Your task to perform on an android device: turn off location history Image 0: 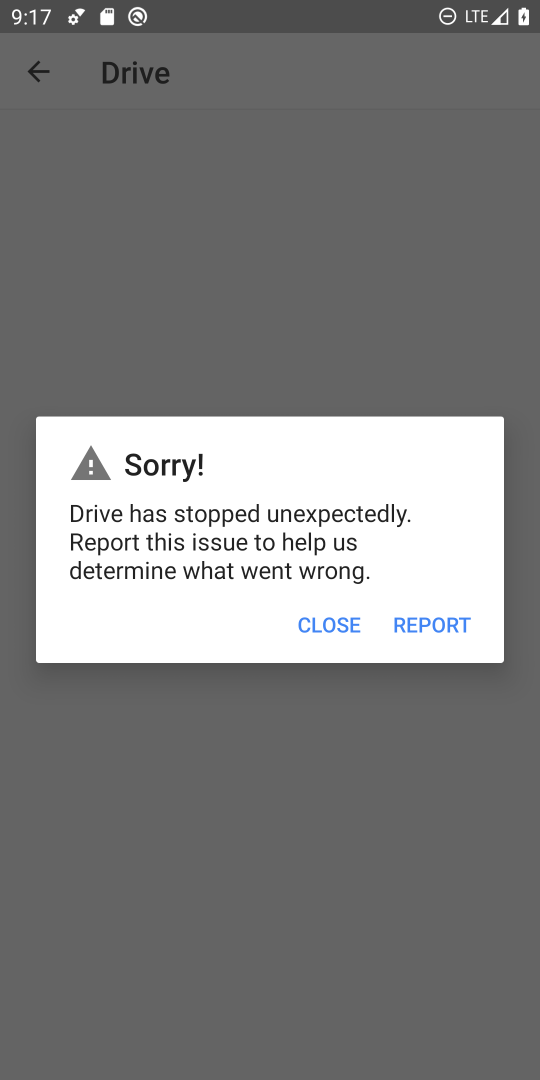
Step 0: press home button
Your task to perform on an android device: turn off location history Image 1: 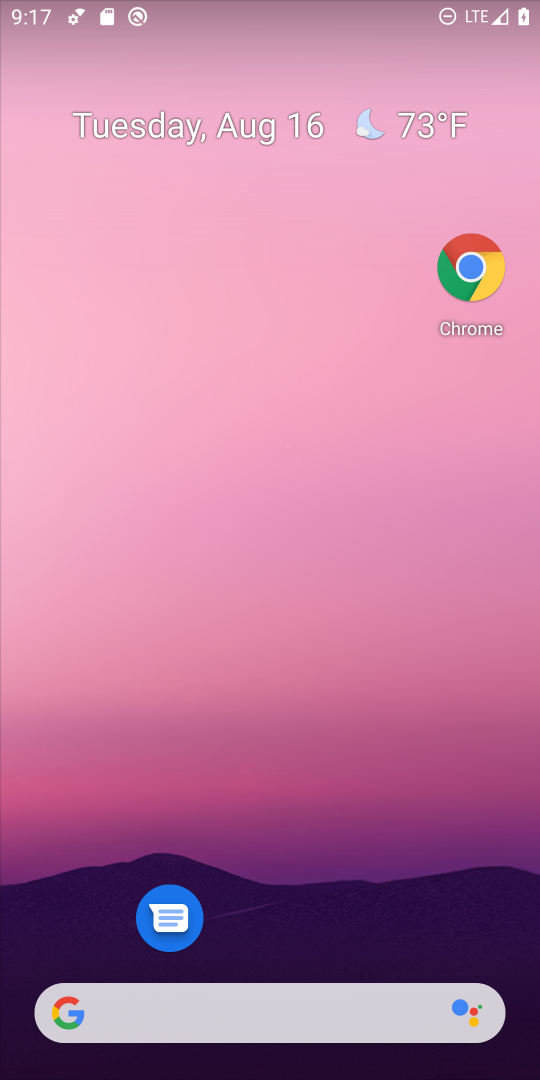
Step 1: drag from (315, 879) to (363, 41)
Your task to perform on an android device: turn off location history Image 2: 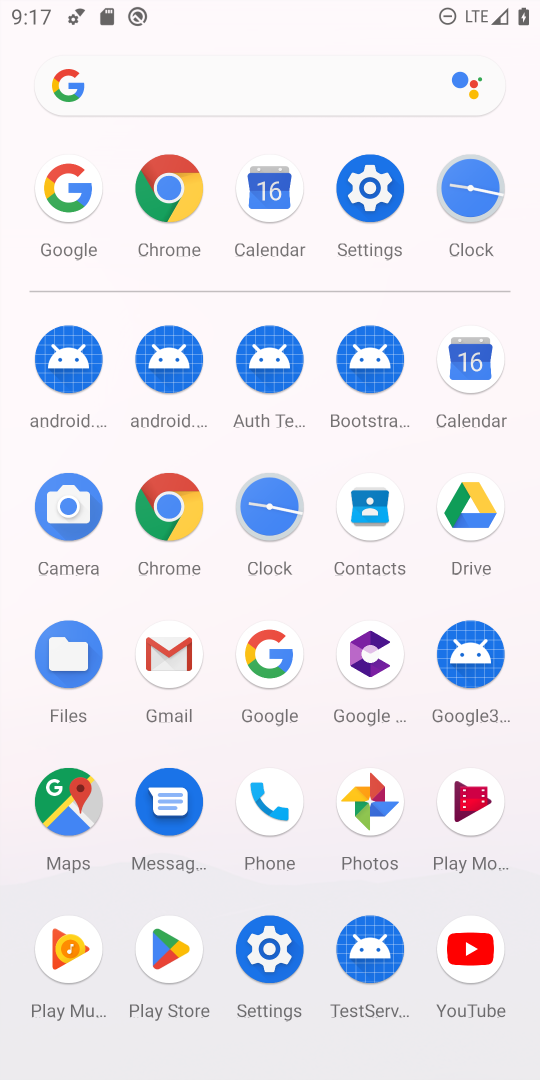
Step 2: click (383, 207)
Your task to perform on an android device: turn off location history Image 3: 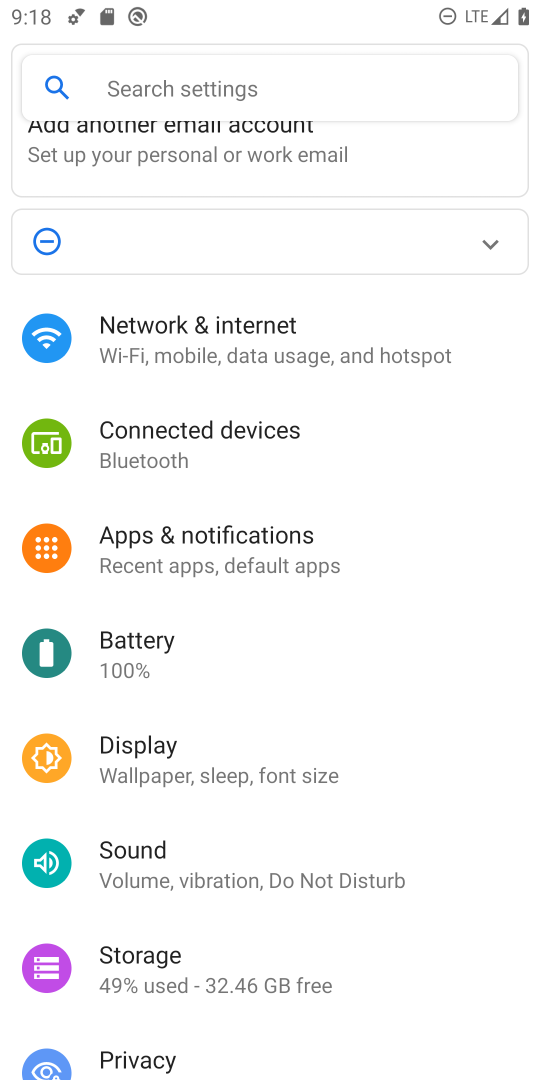
Step 3: drag from (186, 932) to (242, 267)
Your task to perform on an android device: turn off location history Image 4: 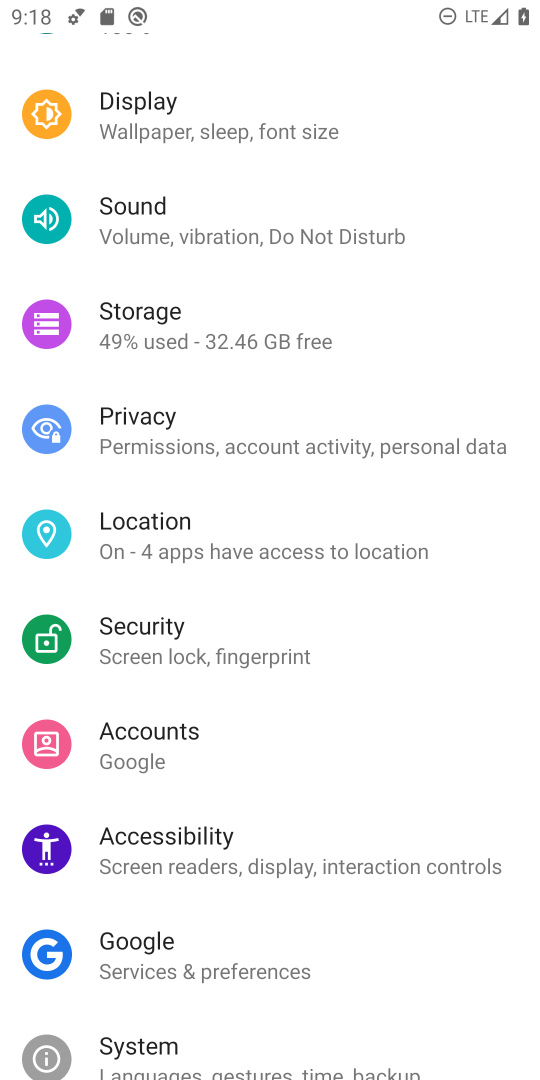
Step 4: click (144, 517)
Your task to perform on an android device: turn off location history Image 5: 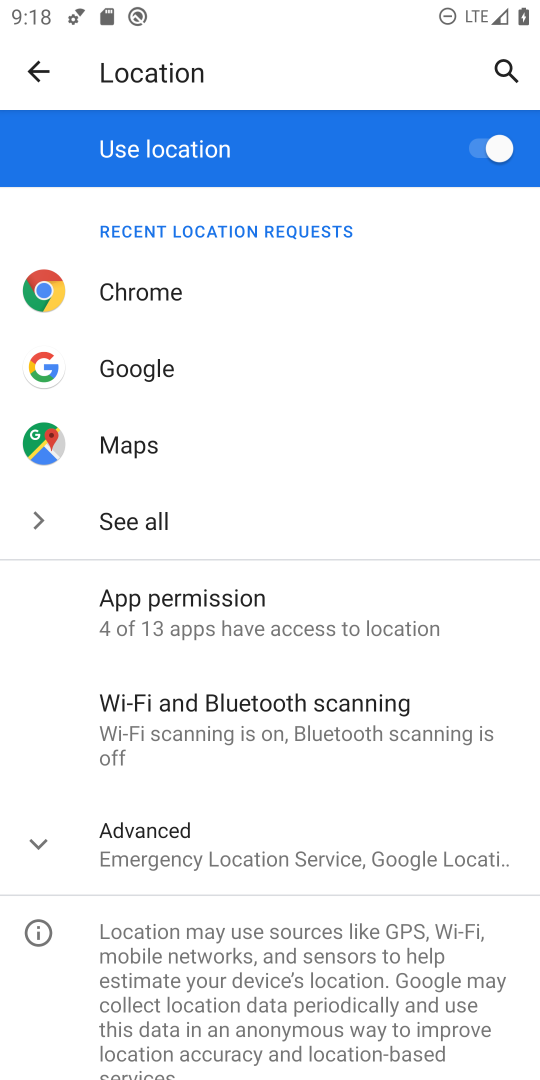
Step 5: click (98, 889)
Your task to perform on an android device: turn off location history Image 6: 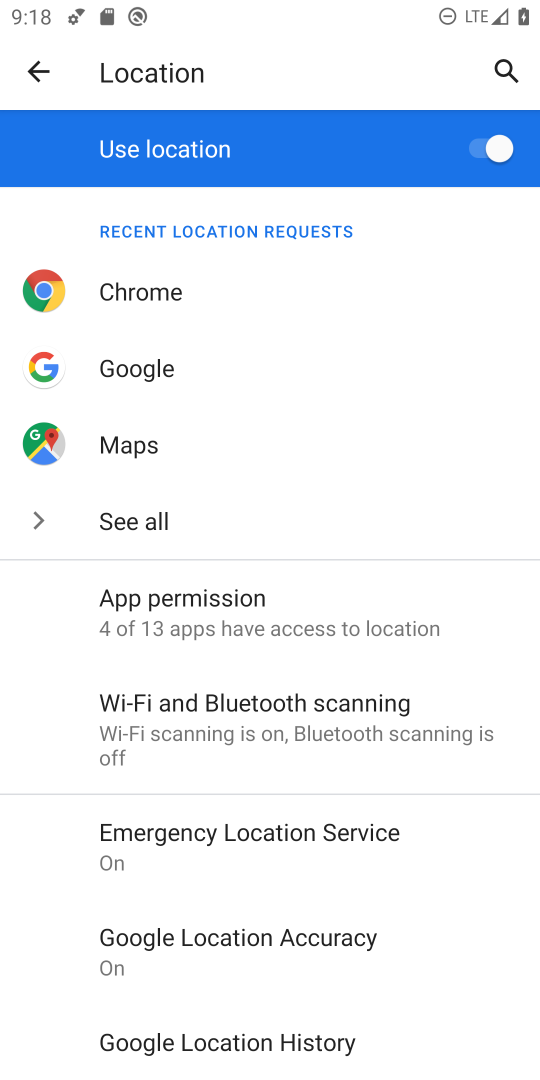
Step 6: drag from (274, 615) to (224, 168)
Your task to perform on an android device: turn off location history Image 7: 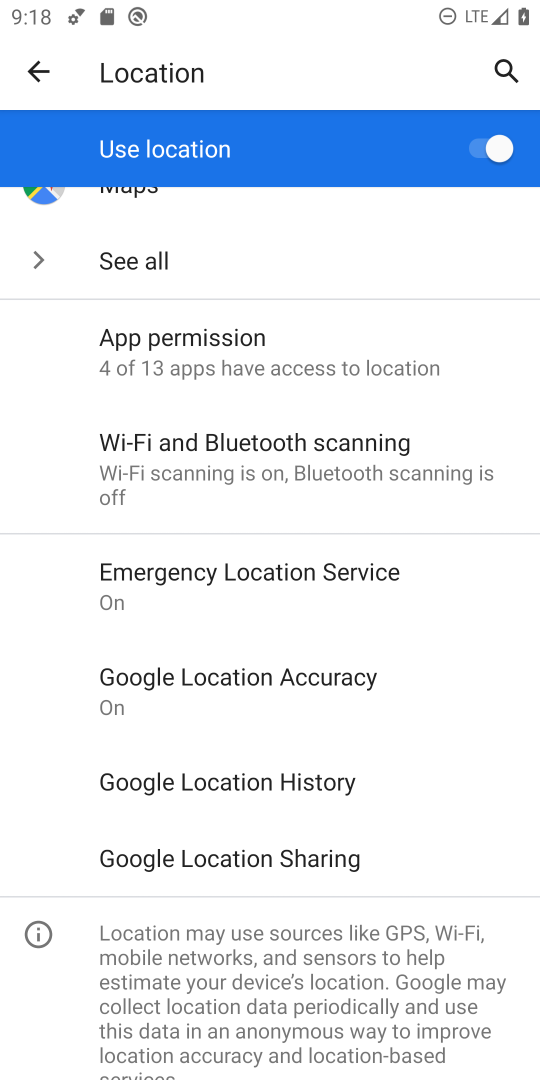
Step 7: click (155, 788)
Your task to perform on an android device: turn off location history Image 8: 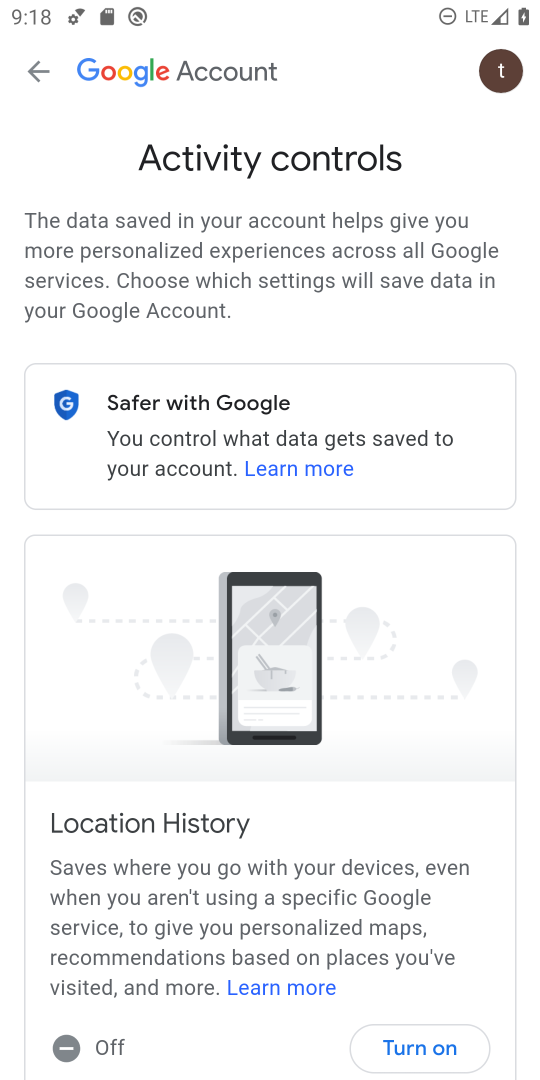
Step 8: task complete